Your task to perform on an android device: Open the map Image 0: 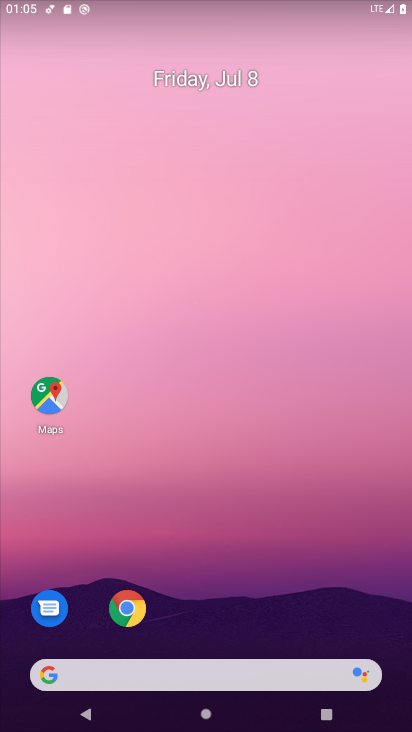
Step 0: click (53, 387)
Your task to perform on an android device: Open the map Image 1: 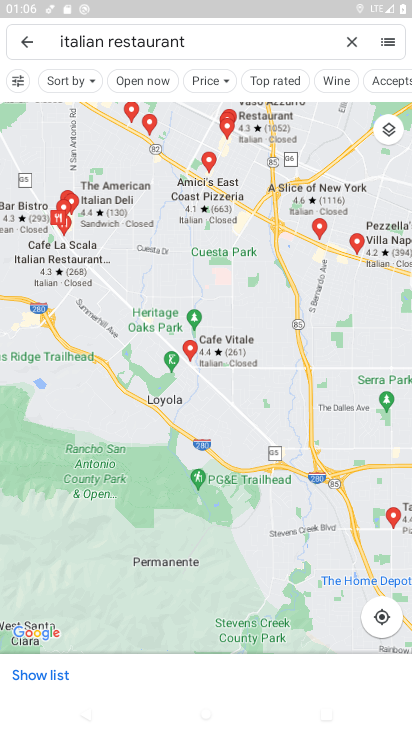
Step 1: click (350, 41)
Your task to perform on an android device: Open the map Image 2: 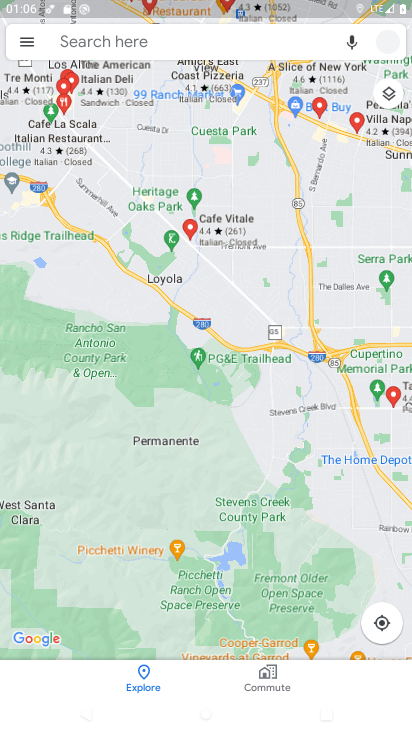
Step 2: task complete